Your task to perform on an android device: move an email to a new category in the gmail app Image 0: 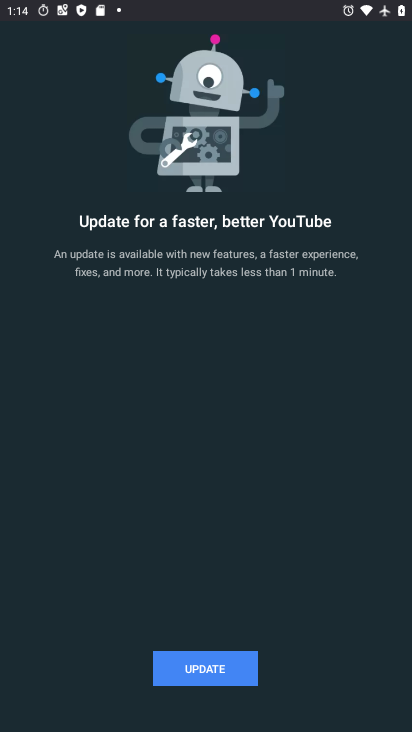
Step 0: press home button
Your task to perform on an android device: move an email to a new category in the gmail app Image 1: 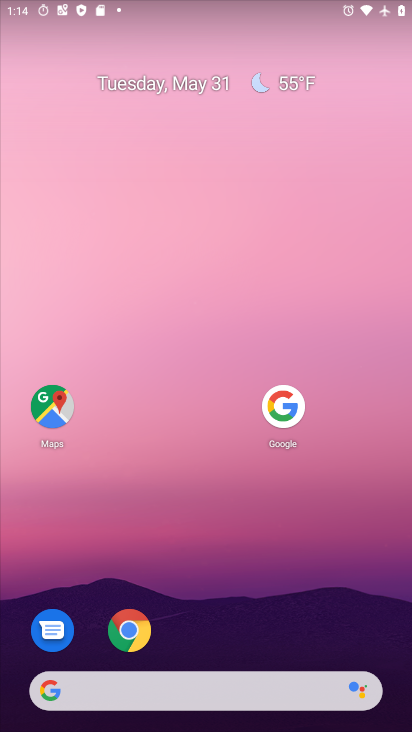
Step 1: drag from (171, 694) to (294, 141)
Your task to perform on an android device: move an email to a new category in the gmail app Image 2: 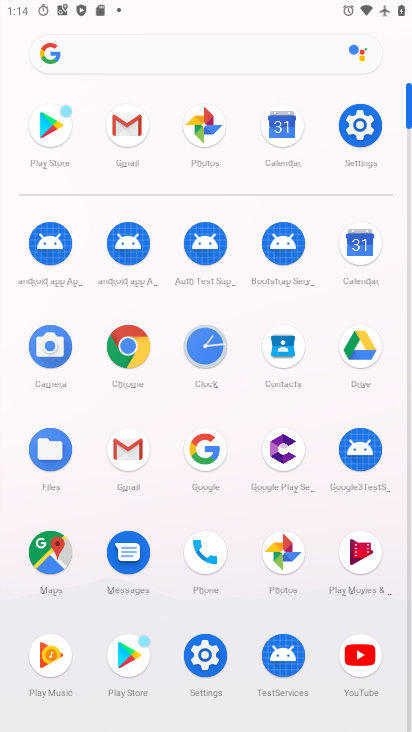
Step 2: click (130, 138)
Your task to perform on an android device: move an email to a new category in the gmail app Image 3: 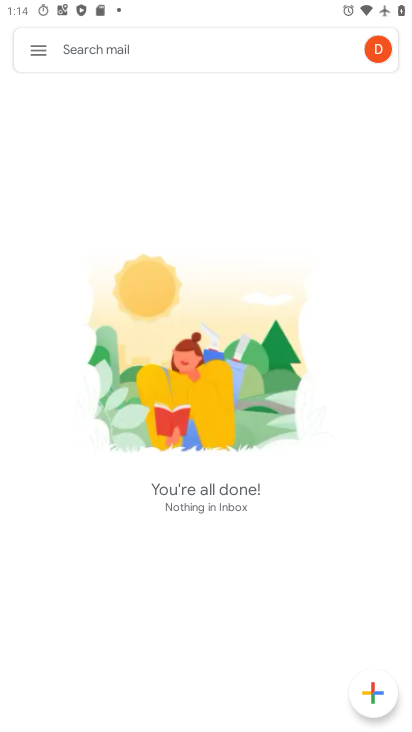
Step 3: task complete